Your task to perform on an android device: turn off airplane mode Image 0: 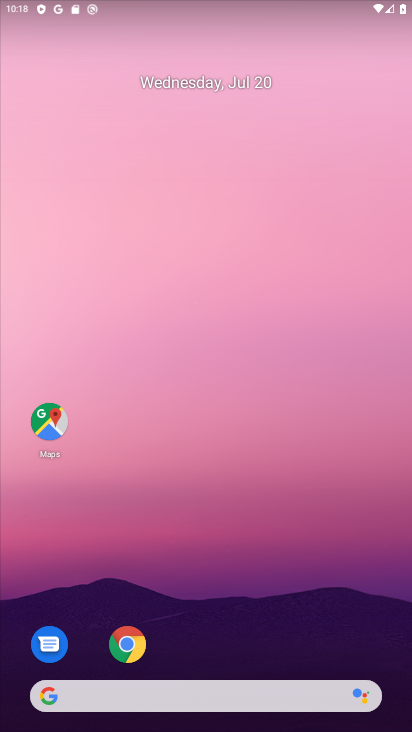
Step 0: drag from (318, 6) to (325, 480)
Your task to perform on an android device: turn off airplane mode Image 1: 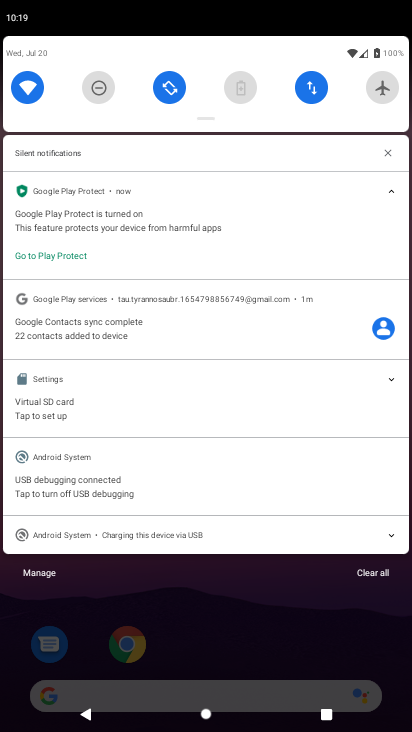
Step 1: task complete